Your task to perform on an android device: turn on bluetooth scan Image 0: 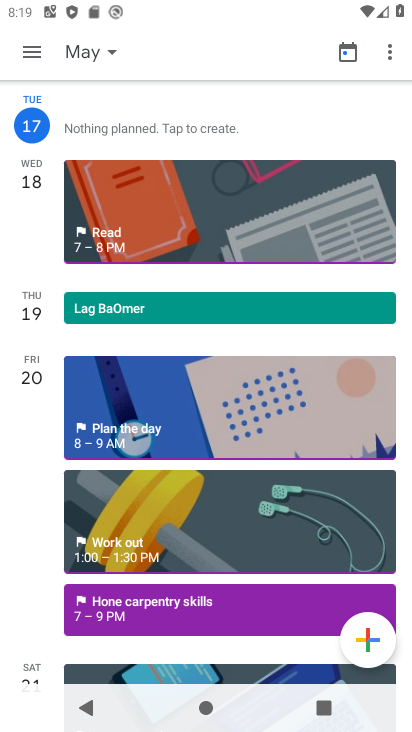
Step 0: press home button
Your task to perform on an android device: turn on bluetooth scan Image 1: 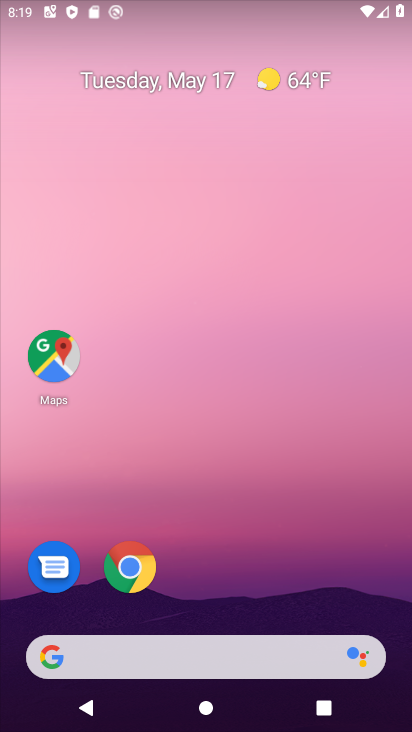
Step 1: drag from (363, 624) to (210, 50)
Your task to perform on an android device: turn on bluetooth scan Image 2: 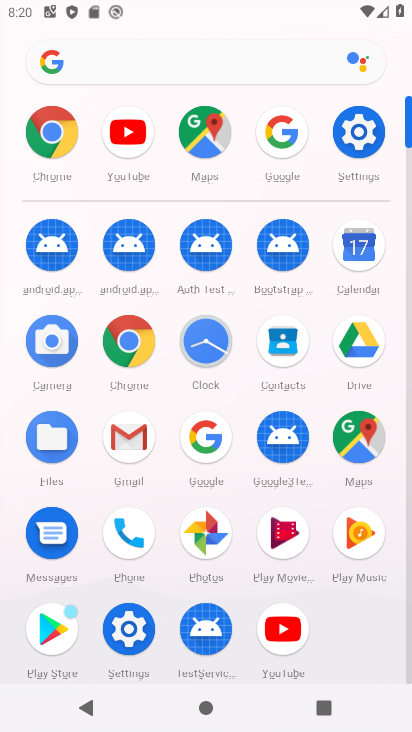
Step 2: click (338, 137)
Your task to perform on an android device: turn on bluetooth scan Image 3: 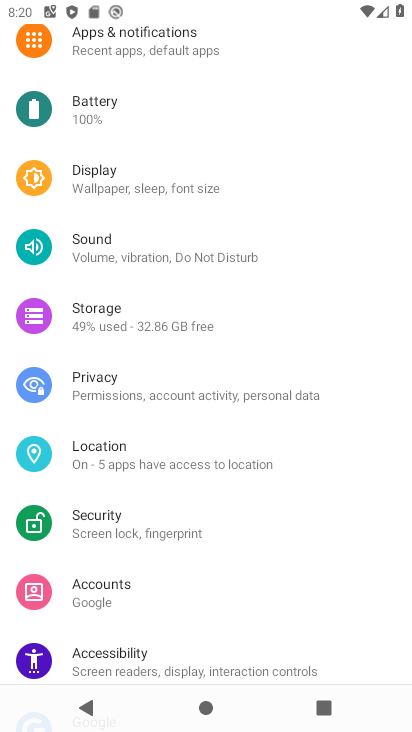
Step 3: click (154, 463)
Your task to perform on an android device: turn on bluetooth scan Image 4: 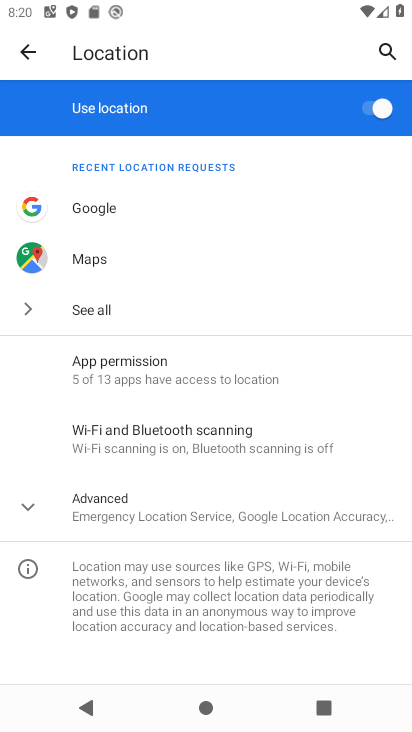
Step 4: click (157, 451)
Your task to perform on an android device: turn on bluetooth scan Image 5: 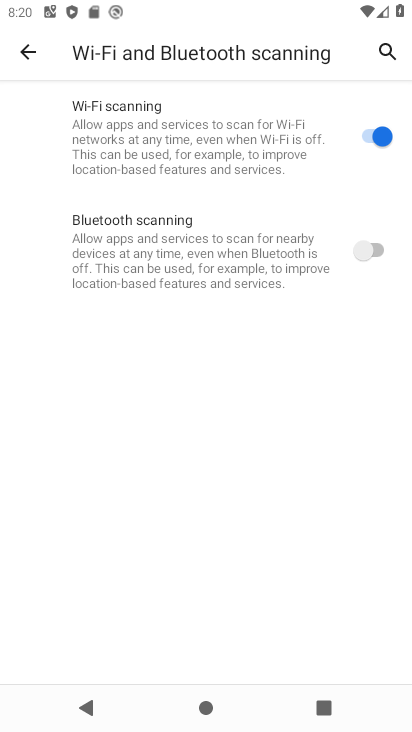
Step 5: click (349, 266)
Your task to perform on an android device: turn on bluetooth scan Image 6: 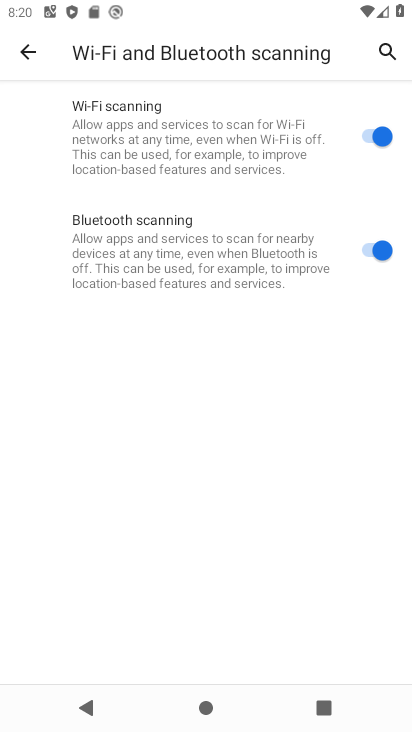
Step 6: task complete